Your task to perform on an android device: turn on airplane mode Image 0: 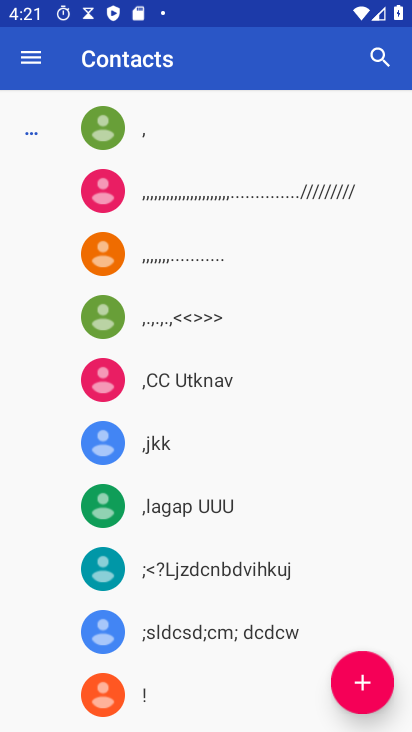
Step 0: press home button
Your task to perform on an android device: turn on airplane mode Image 1: 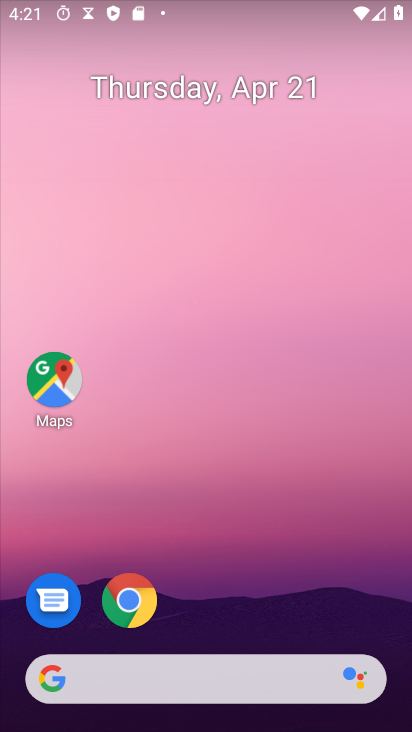
Step 1: drag from (204, 588) to (243, 128)
Your task to perform on an android device: turn on airplane mode Image 2: 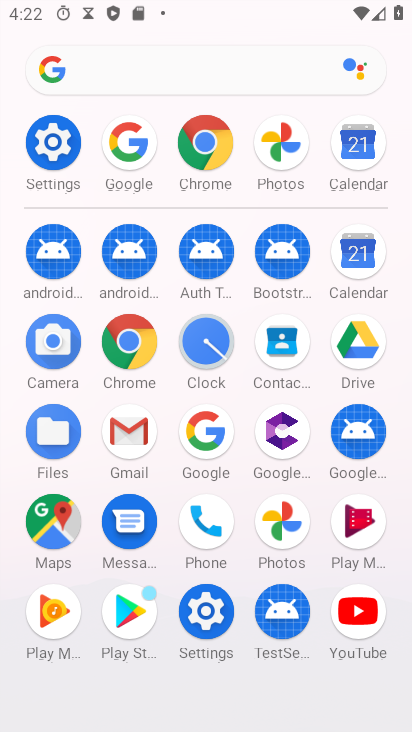
Step 2: click (54, 142)
Your task to perform on an android device: turn on airplane mode Image 3: 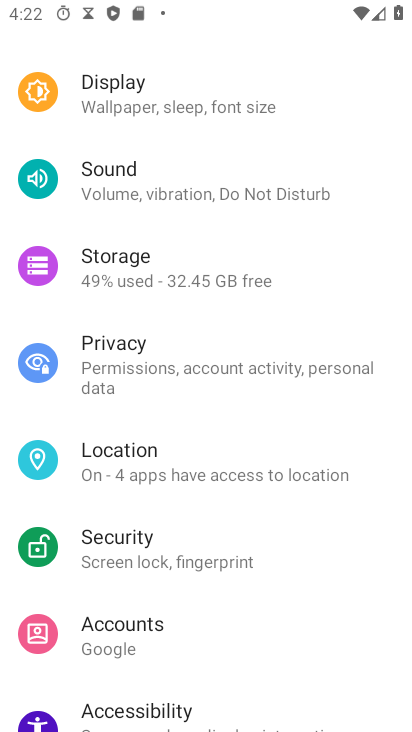
Step 3: drag from (186, 139) to (204, 216)
Your task to perform on an android device: turn on airplane mode Image 4: 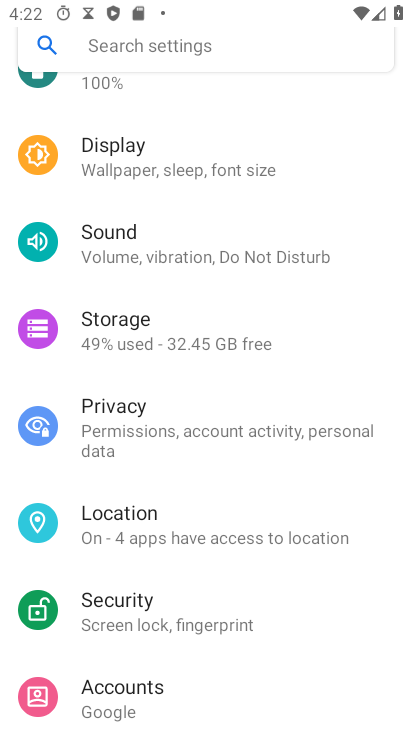
Step 4: drag from (214, 219) to (183, 360)
Your task to perform on an android device: turn on airplane mode Image 5: 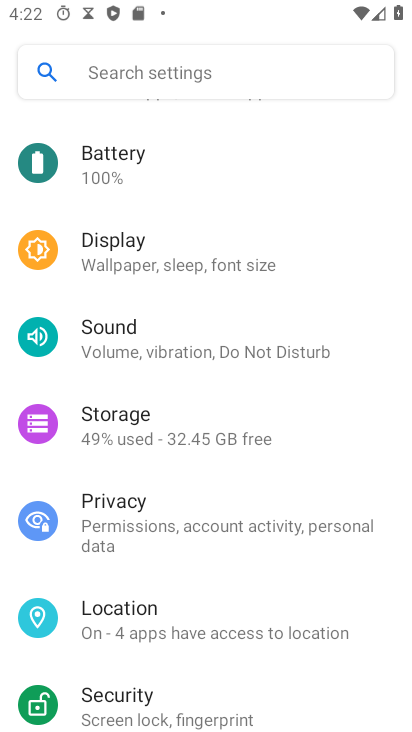
Step 5: drag from (195, 219) to (193, 346)
Your task to perform on an android device: turn on airplane mode Image 6: 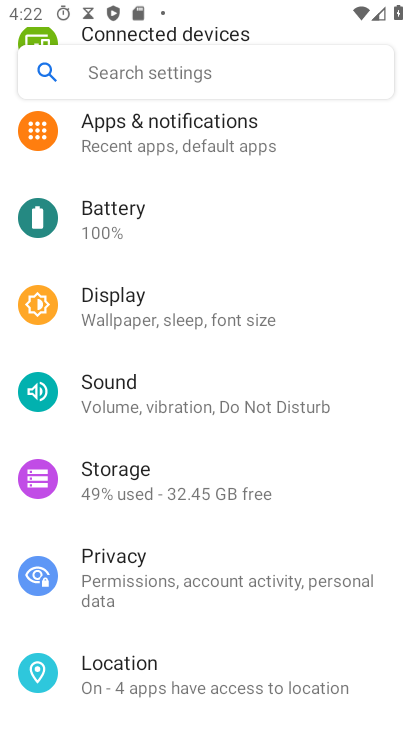
Step 6: drag from (196, 236) to (200, 407)
Your task to perform on an android device: turn on airplane mode Image 7: 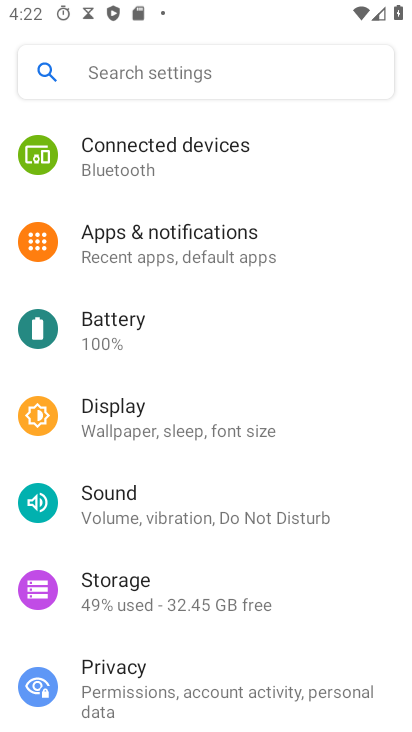
Step 7: drag from (240, 203) to (215, 456)
Your task to perform on an android device: turn on airplane mode Image 8: 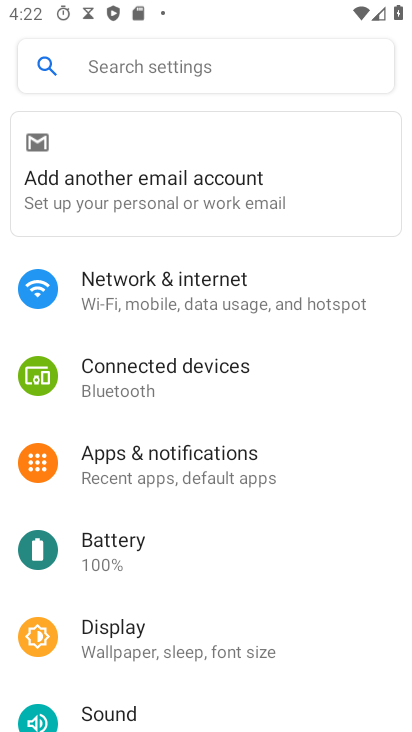
Step 8: click (222, 305)
Your task to perform on an android device: turn on airplane mode Image 9: 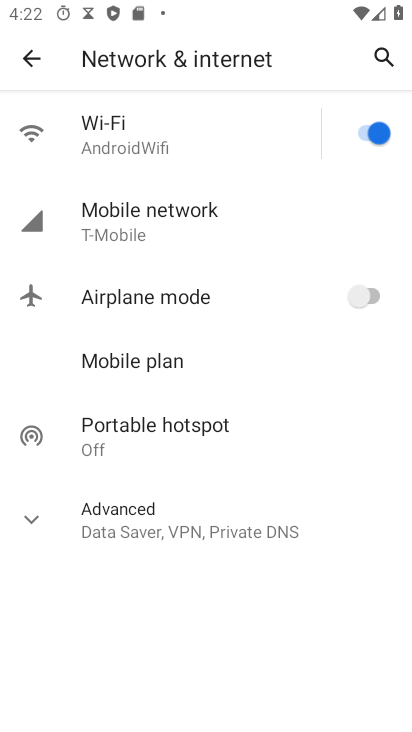
Step 9: click (355, 295)
Your task to perform on an android device: turn on airplane mode Image 10: 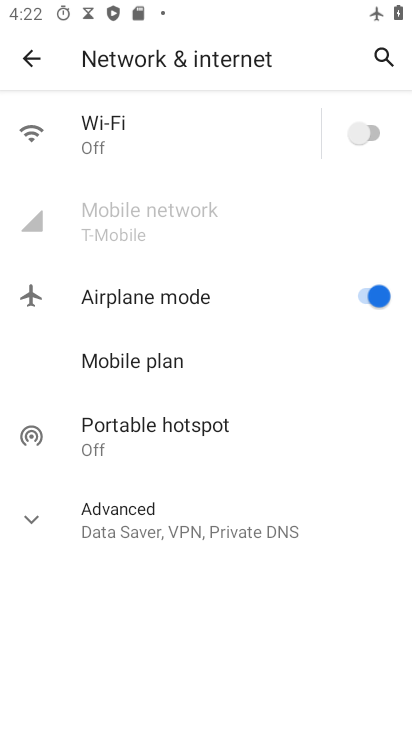
Step 10: task complete